Your task to perform on an android device: clear all cookies in the chrome app Image 0: 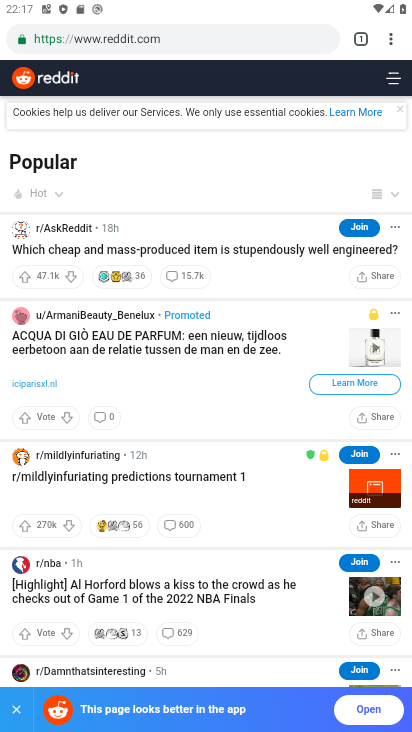
Step 0: click (394, 41)
Your task to perform on an android device: clear all cookies in the chrome app Image 1: 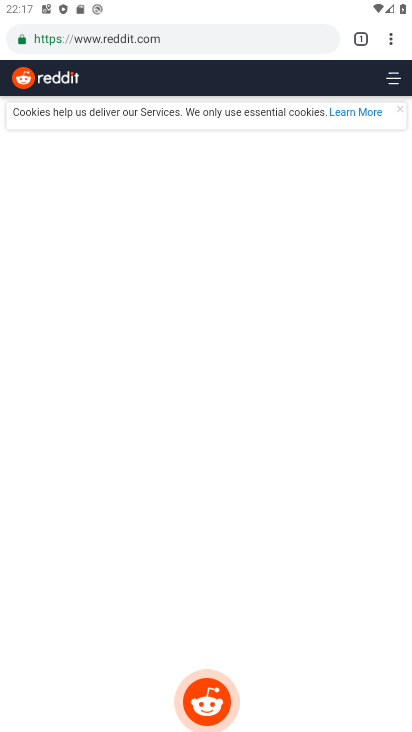
Step 1: click (392, 44)
Your task to perform on an android device: clear all cookies in the chrome app Image 2: 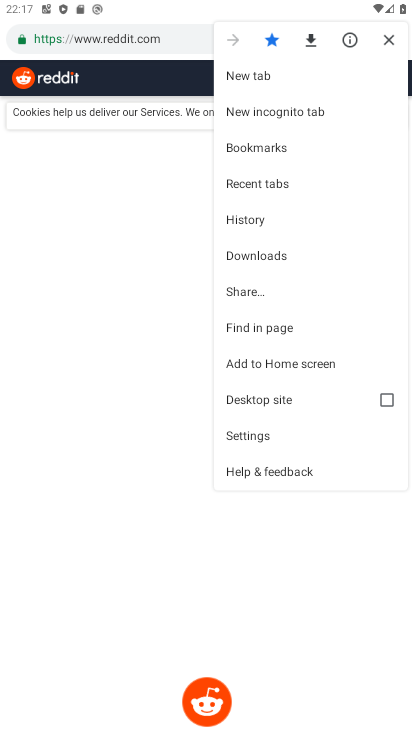
Step 2: click (267, 228)
Your task to perform on an android device: clear all cookies in the chrome app Image 3: 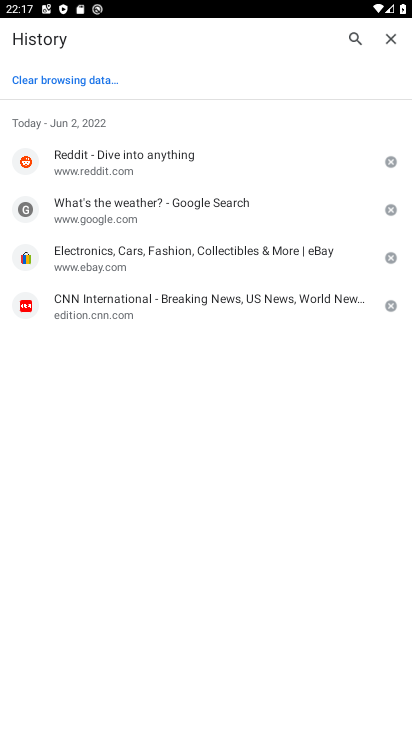
Step 3: click (42, 74)
Your task to perform on an android device: clear all cookies in the chrome app Image 4: 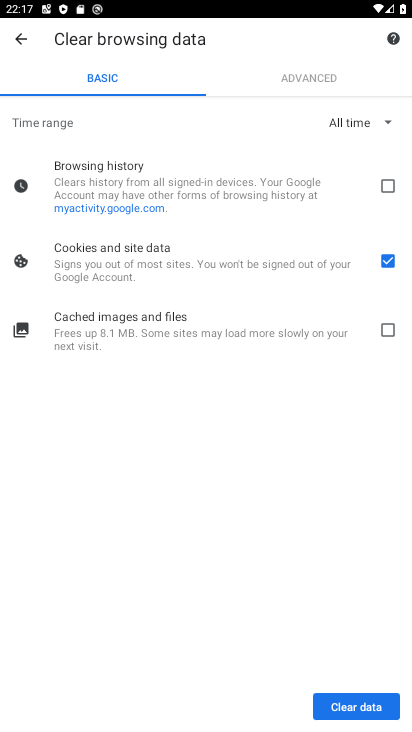
Step 4: click (327, 721)
Your task to perform on an android device: clear all cookies in the chrome app Image 5: 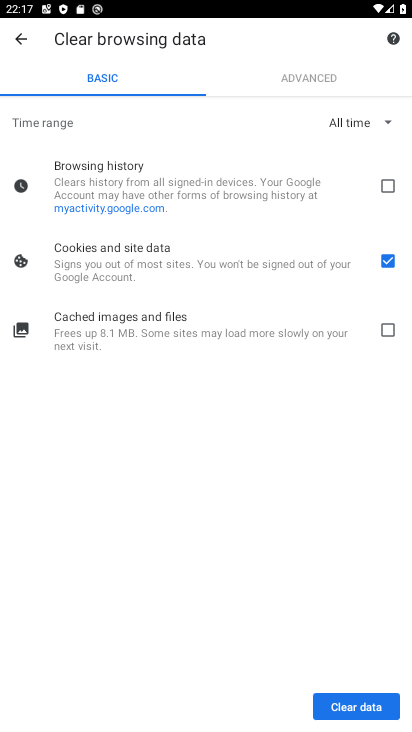
Step 5: click (341, 703)
Your task to perform on an android device: clear all cookies in the chrome app Image 6: 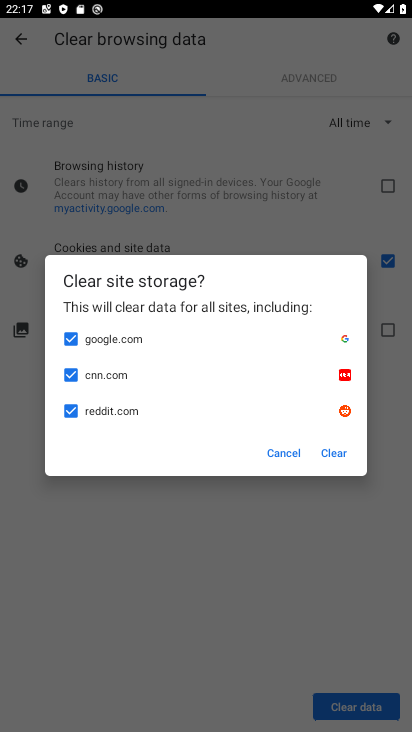
Step 6: click (332, 455)
Your task to perform on an android device: clear all cookies in the chrome app Image 7: 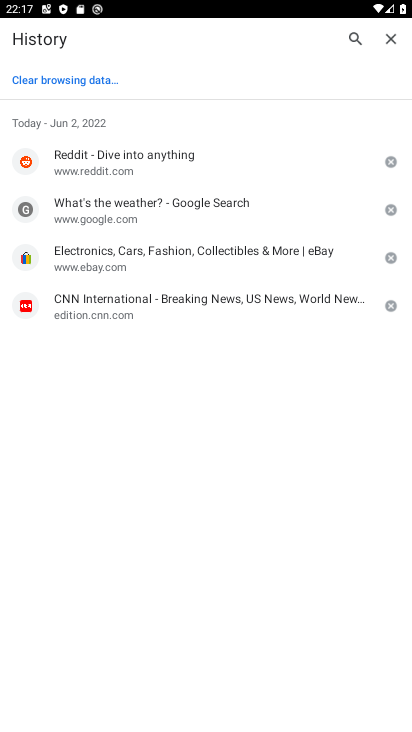
Step 7: task complete